Your task to perform on an android device: Go to Maps Image 0: 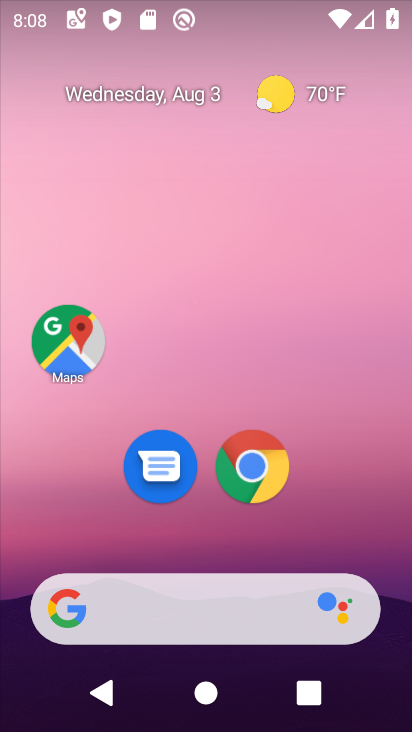
Step 0: drag from (323, 521) to (318, 14)
Your task to perform on an android device: Go to Maps Image 1: 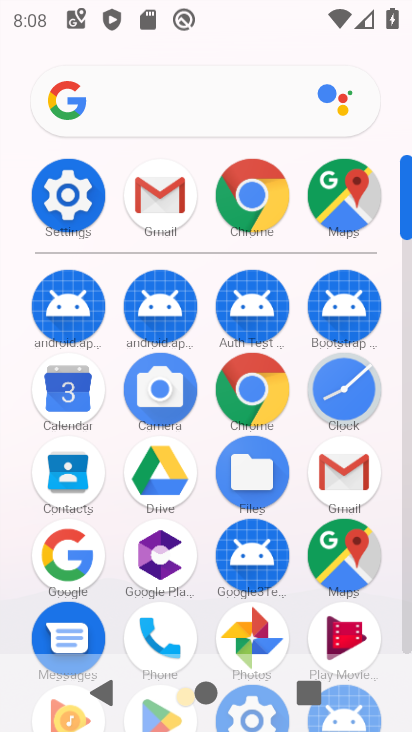
Step 1: click (352, 557)
Your task to perform on an android device: Go to Maps Image 2: 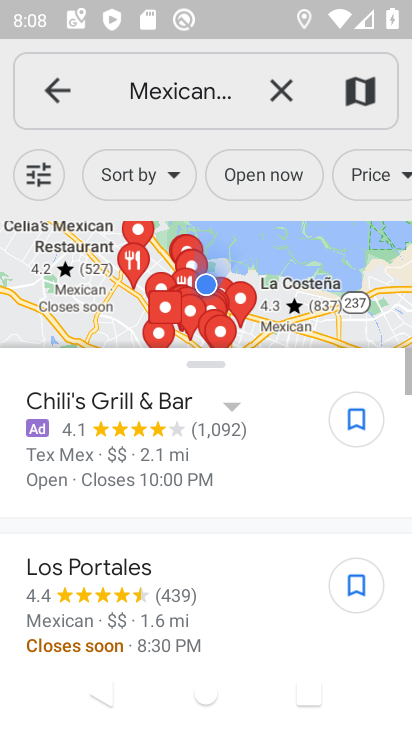
Step 2: task complete